Your task to perform on an android device: turn off smart reply in the gmail app Image 0: 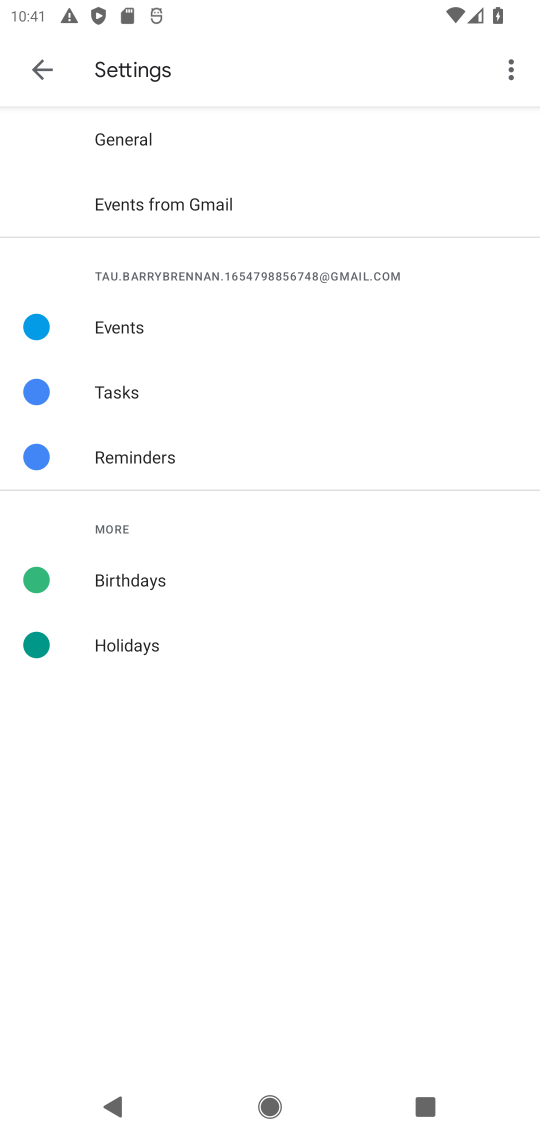
Step 0: press home button
Your task to perform on an android device: turn off smart reply in the gmail app Image 1: 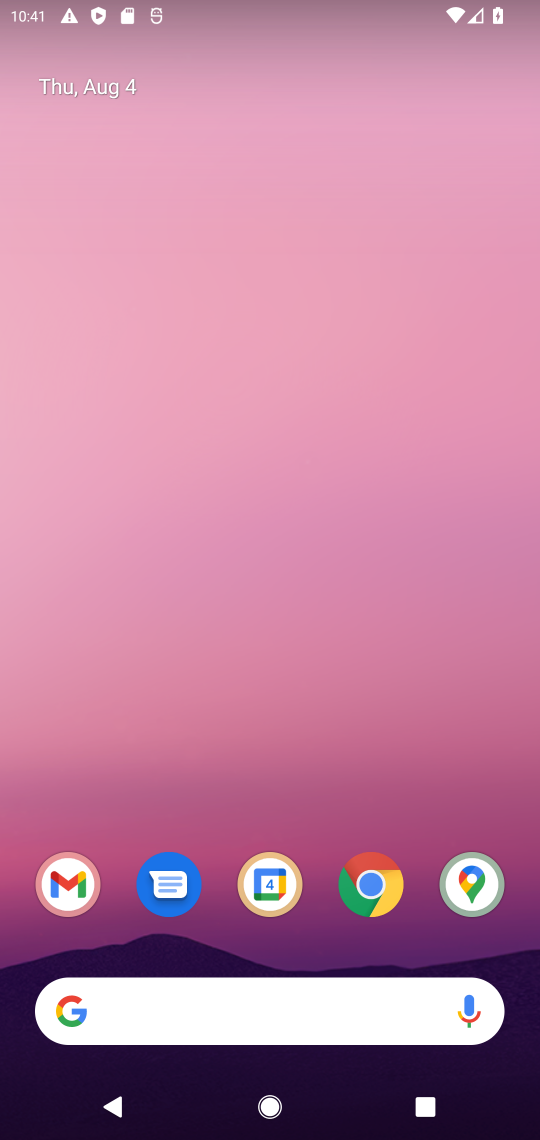
Step 1: click (80, 911)
Your task to perform on an android device: turn off smart reply in the gmail app Image 2: 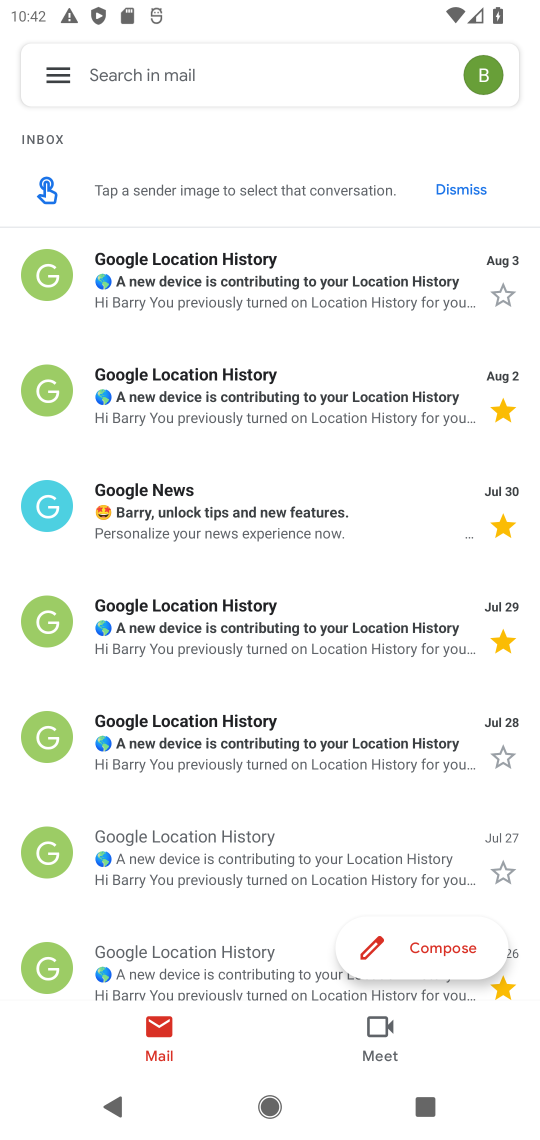
Step 2: click (64, 99)
Your task to perform on an android device: turn off smart reply in the gmail app Image 3: 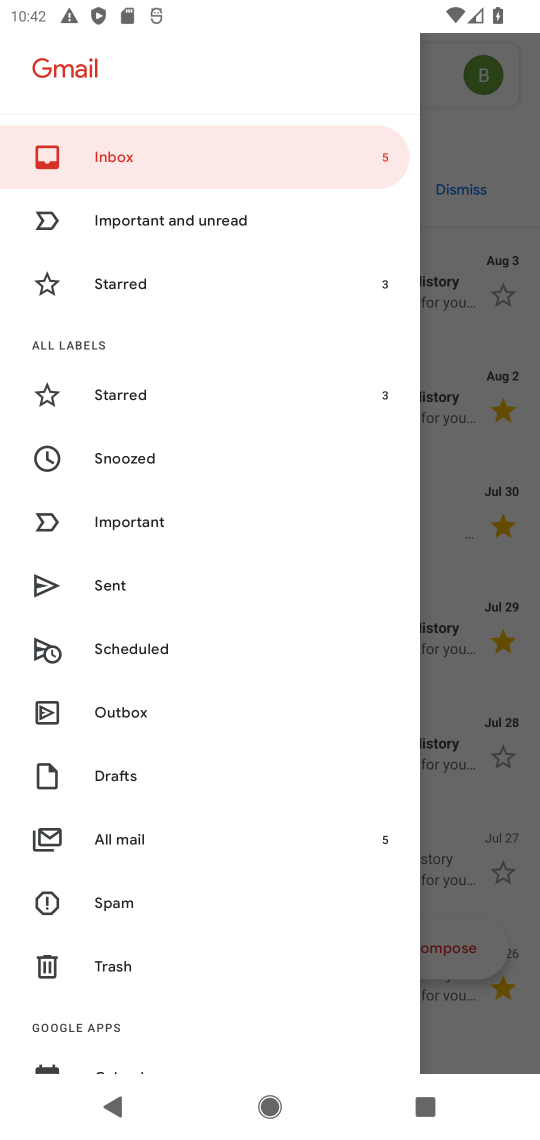
Step 3: drag from (212, 976) to (392, 183)
Your task to perform on an android device: turn off smart reply in the gmail app Image 4: 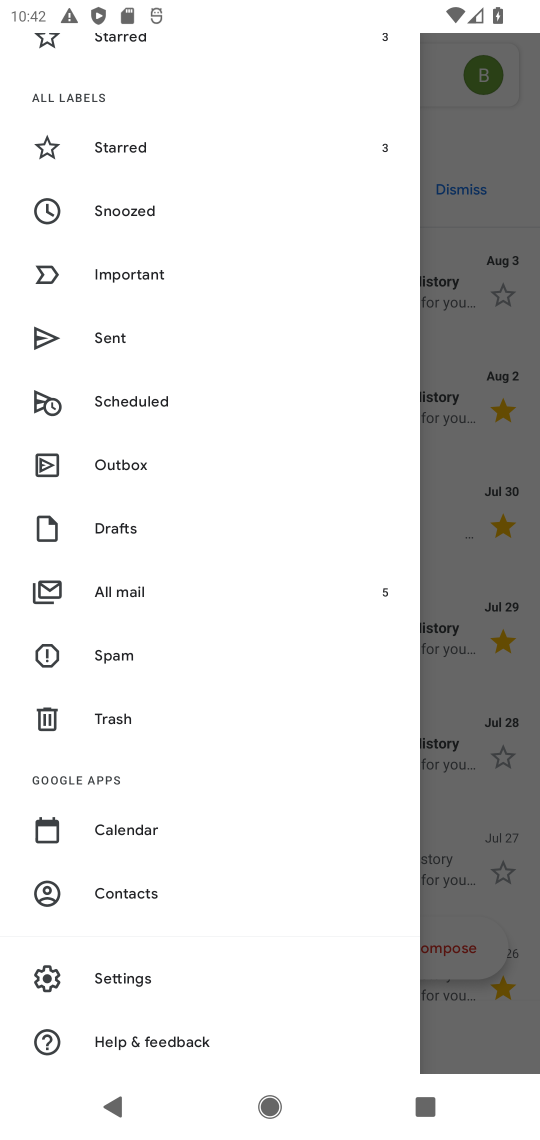
Step 4: click (140, 964)
Your task to perform on an android device: turn off smart reply in the gmail app Image 5: 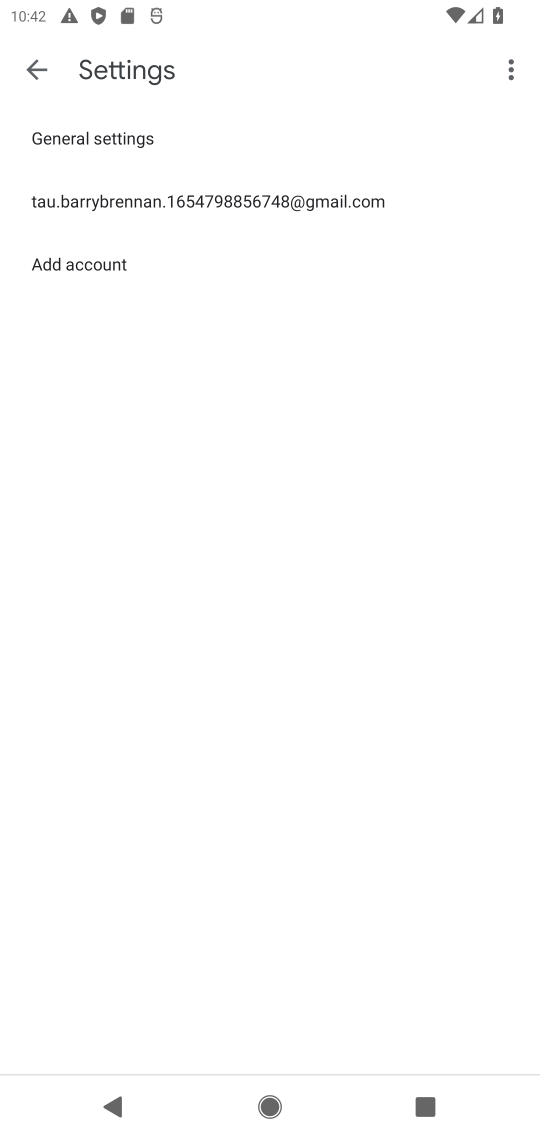
Step 5: click (118, 208)
Your task to perform on an android device: turn off smart reply in the gmail app Image 6: 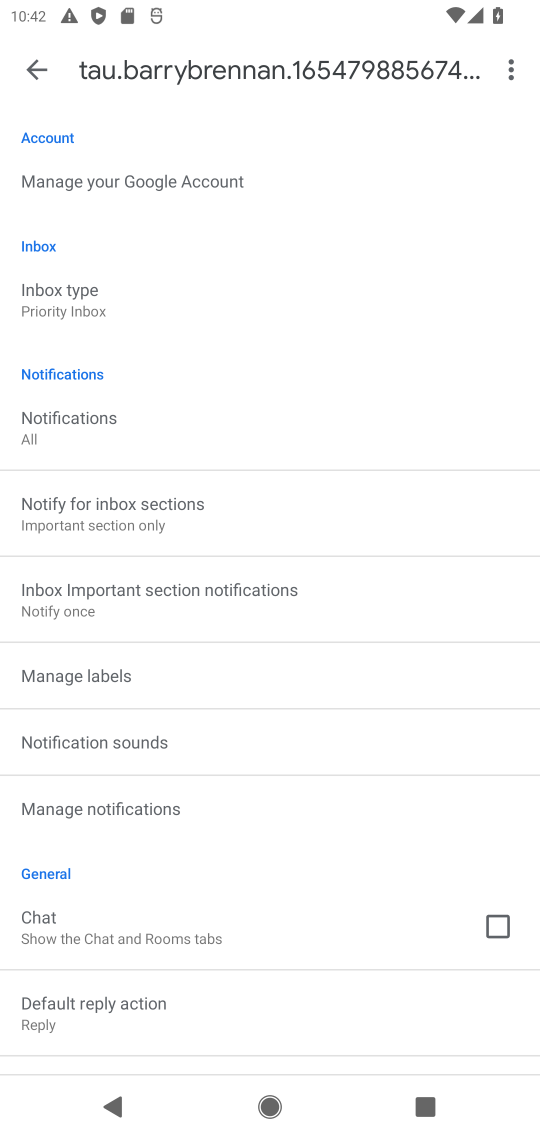
Step 6: task complete